Your task to perform on an android device: open chrome privacy settings Image 0: 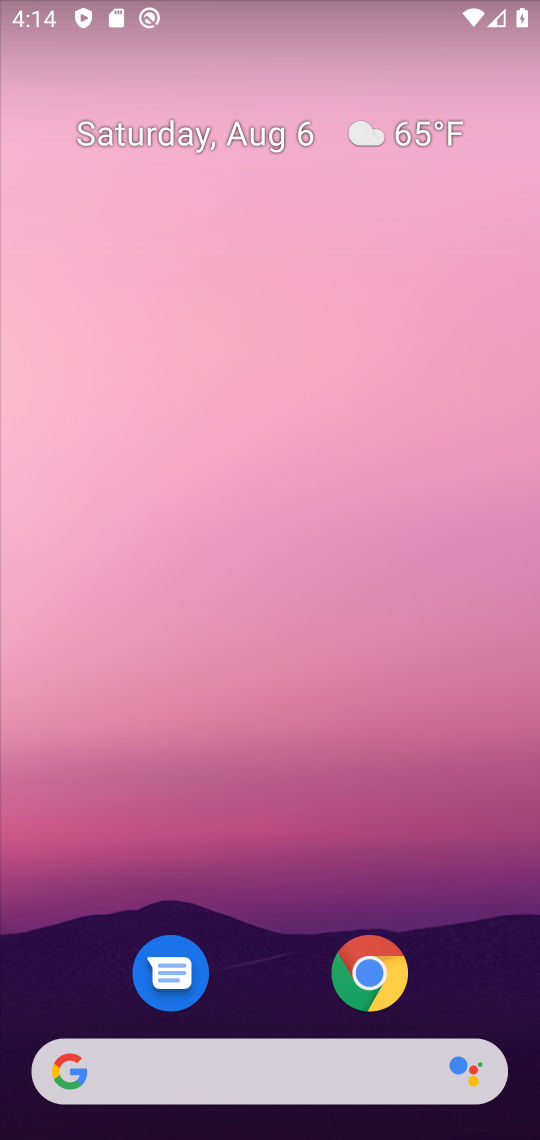
Step 0: drag from (442, 756) to (411, 176)
Your task to perform on an android device: open chrome privacy settings Image 1: 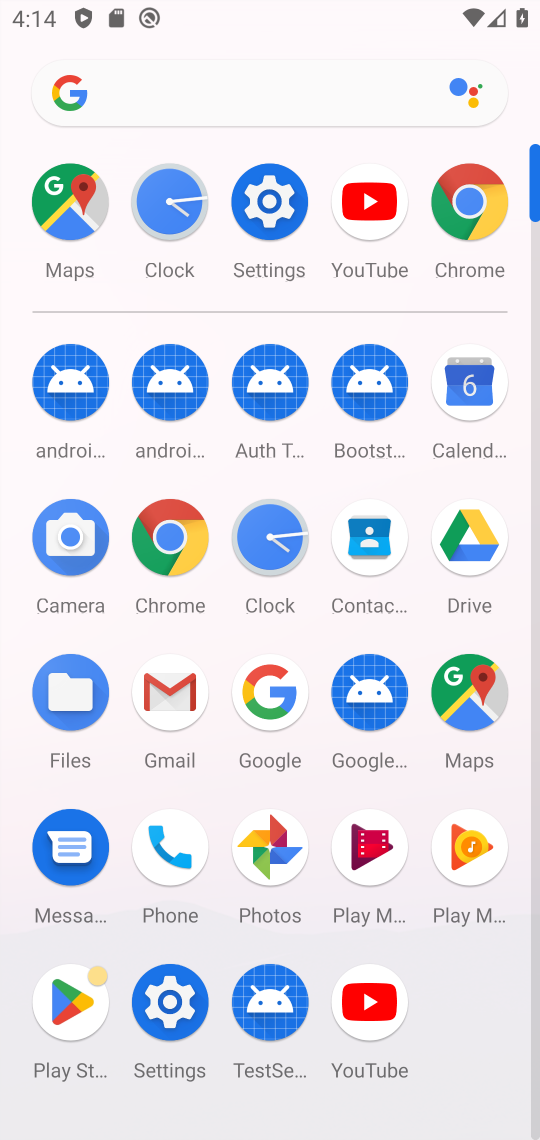
Step 1: click (165, 538)
Your task to perform on an android device: open chrome privacy settings Image 2: 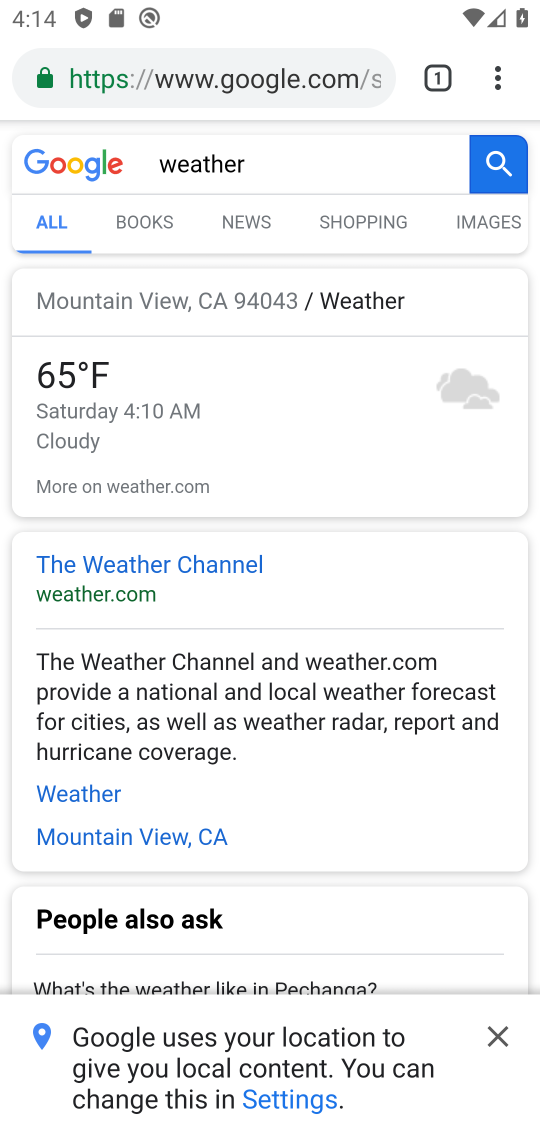
Step 2: drag from (500, 66) to (231, 883)
Your task to perform on an android device: open chrome privacy settings Image 3: 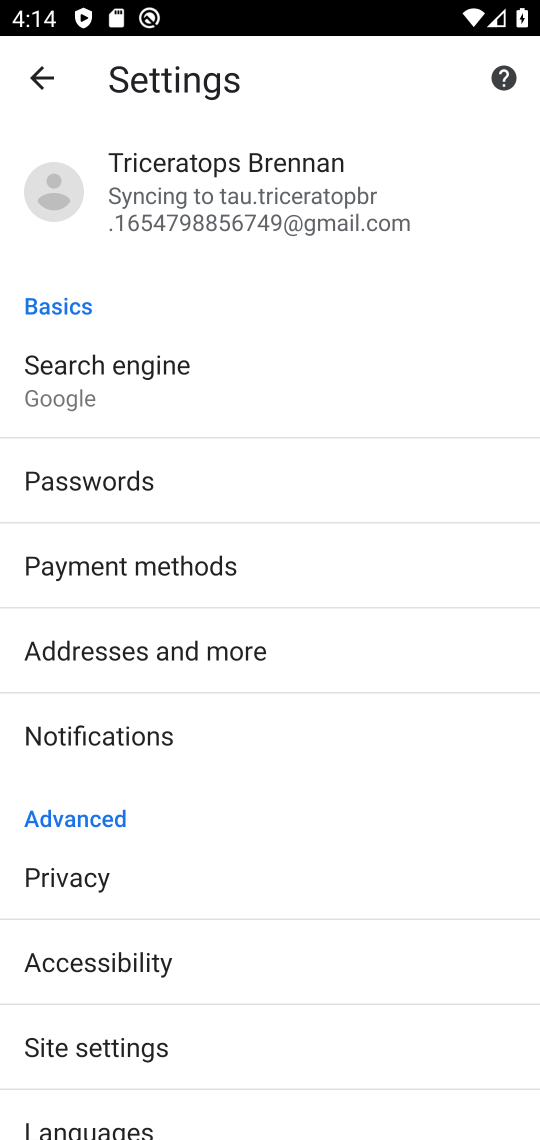
Step 3: drag from (281, 904) to (335, 317)
Your task to perform on an android device: open chrome privacy settings Image 4: 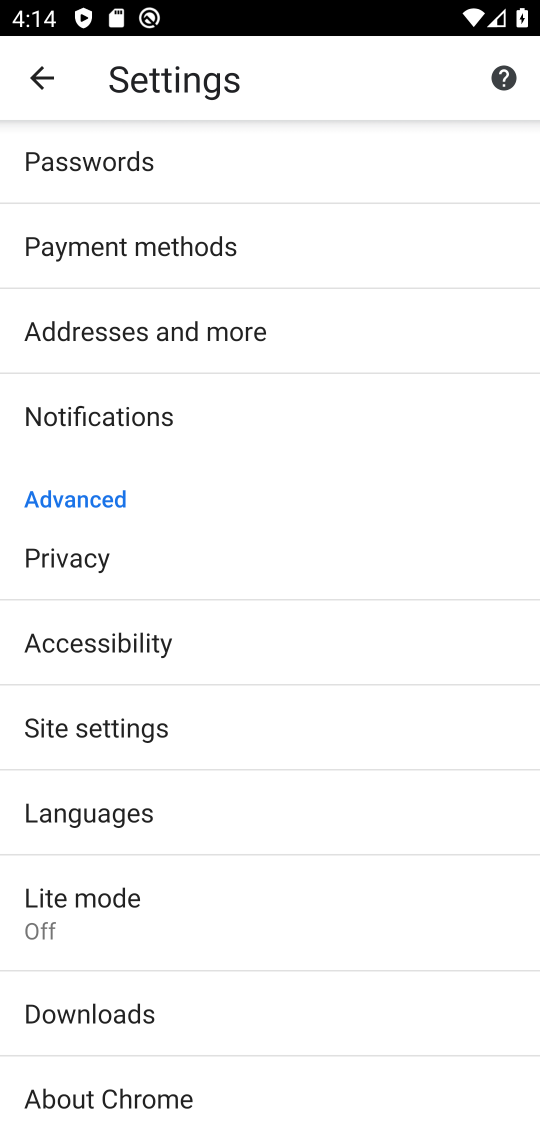
Step 4: click (79, 564)
Your task to perform on an android device: open chrome privacy settings Image 5: 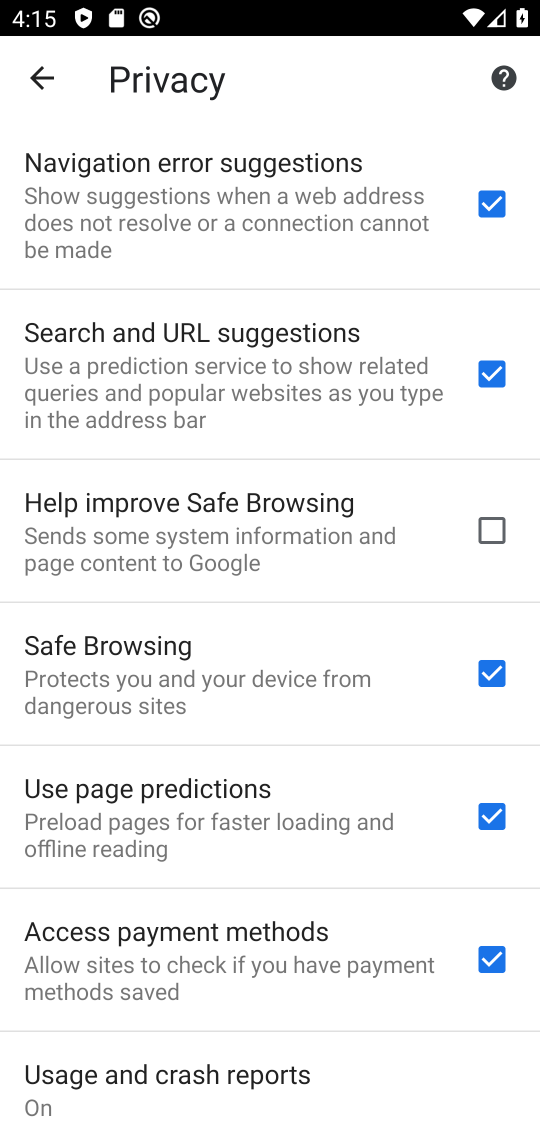
Step 5: task complete